Your task to perform on an android device: Go to Amazon Image 0: 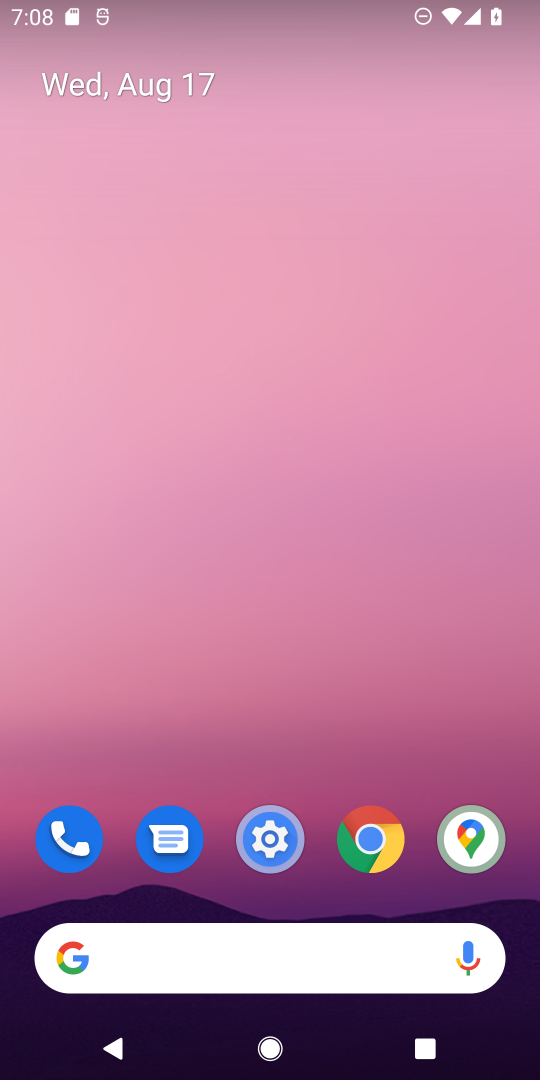
Step 0: click (362, 850)
Your task to perform on an android device: Go to Amazon Image 1: 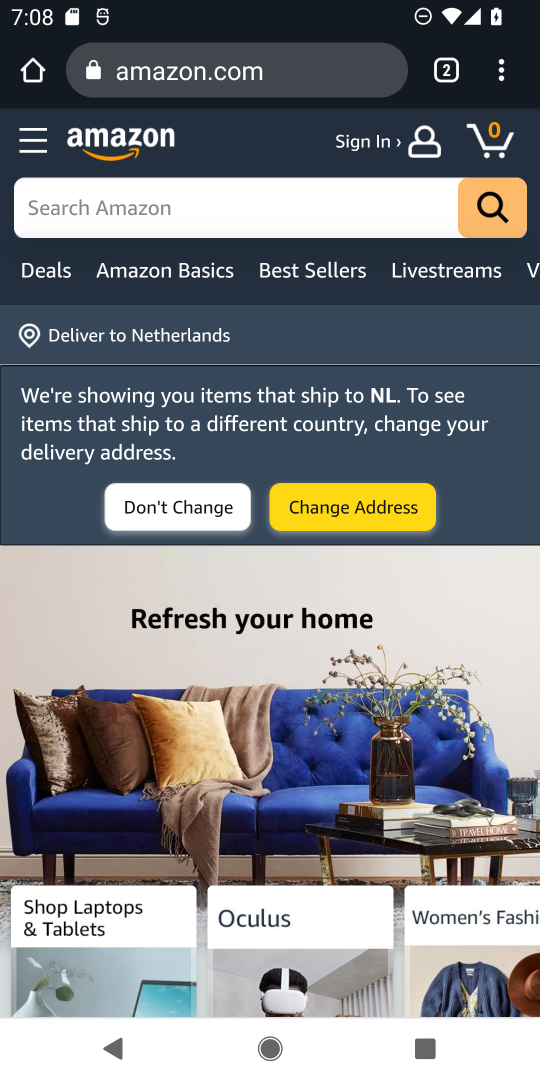
Step 1: drag from (373, 636) to (327, 186)
Your task to perform on an android device: Go to Amazon Image 2: 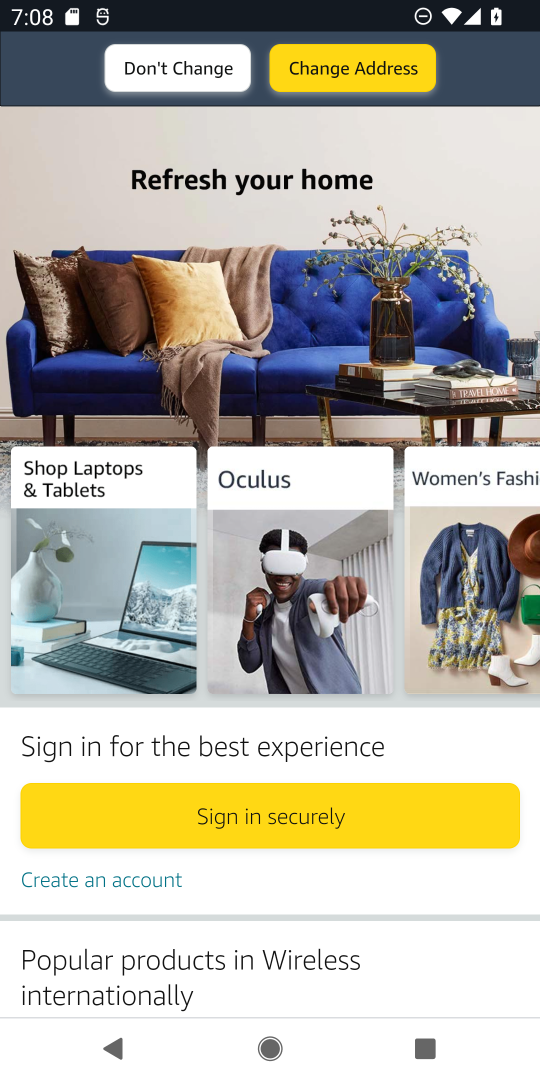
Step 2: press home button
Your task to perform on an android device: Go to Amazon Image 3: 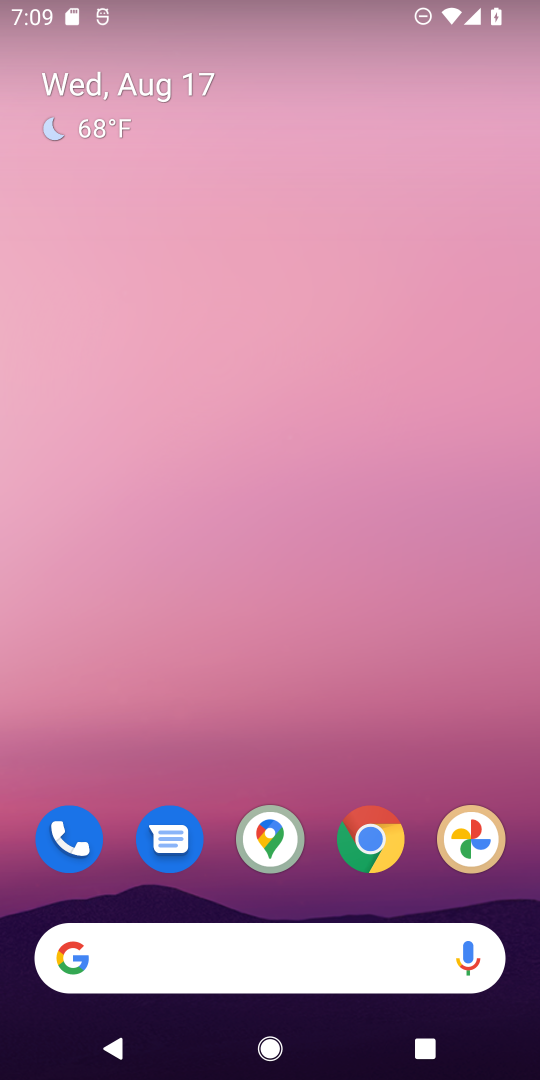
Step 3: click (350, 841)
Your task to perform on an android device: Go to Amazon Image 4: 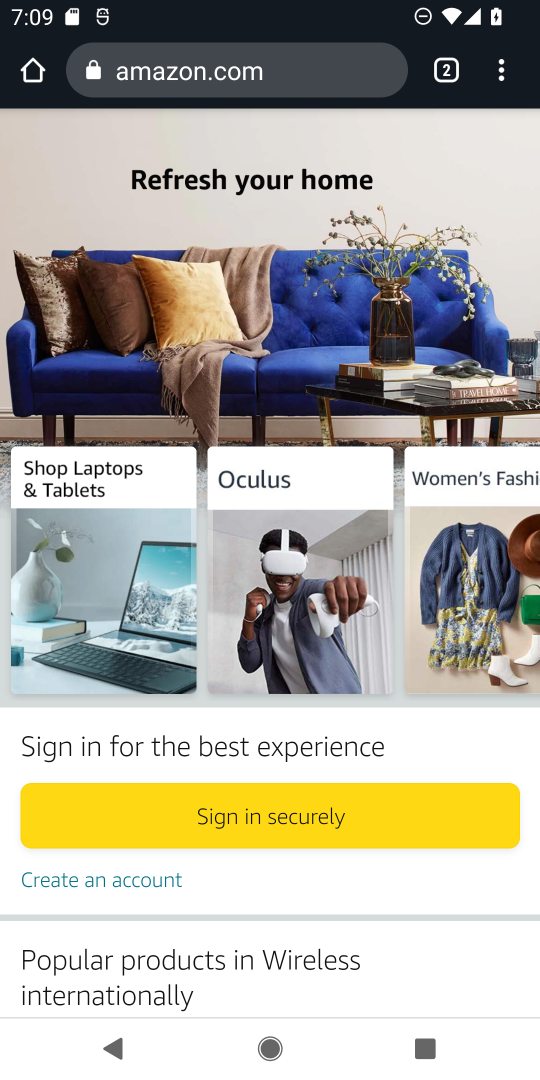
Step 4: task complete